Your task to perform on an android device: Open location settings Image 0: 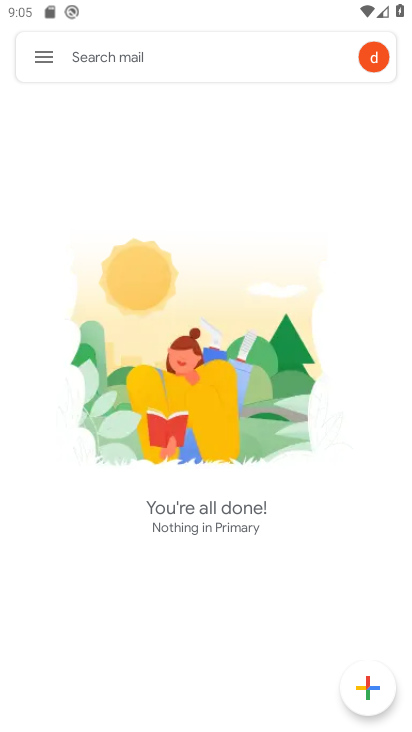
Step 0: press home button
Your task to perform on an android device: Open location settings Image 1: 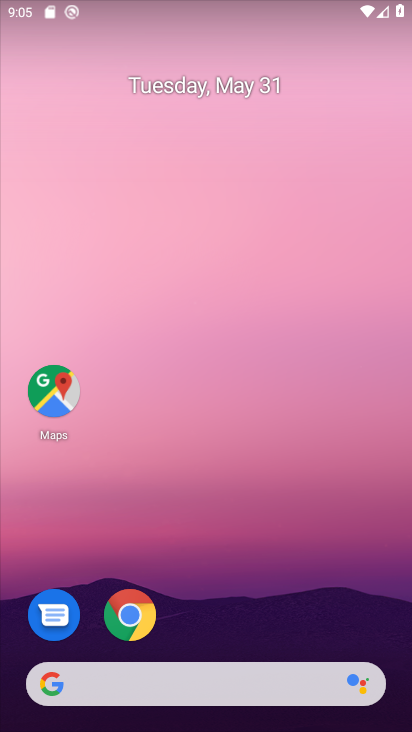
Step 1: drag from (90, 677) to (203, 55)
Your task to perform on an android device: Open location settings Image 2: 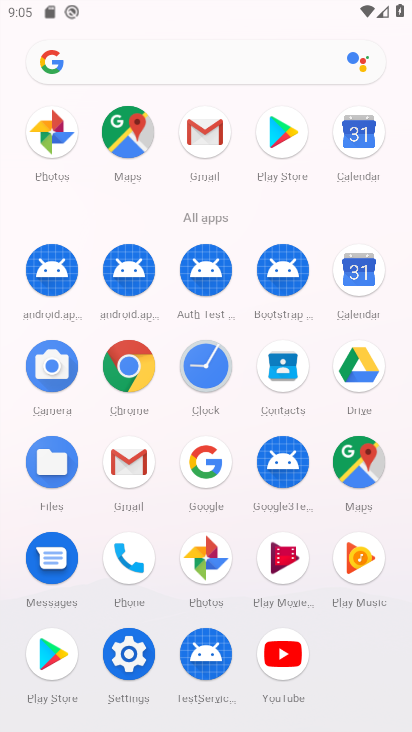
Step 2: drag from (207, 591) to (265, 317)
Your task to perform on an android device: Open location settings Image 3: 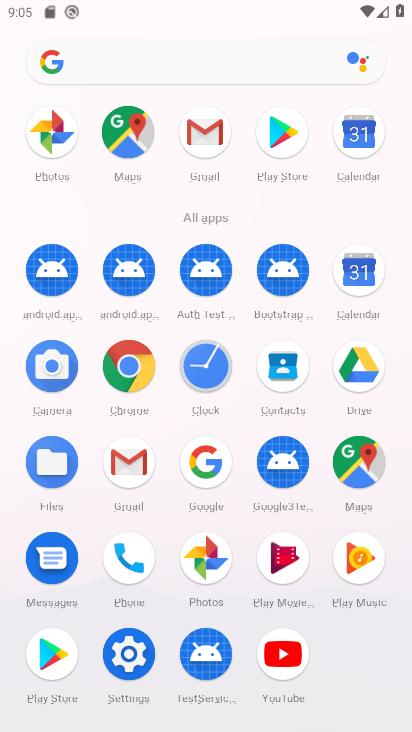
Step 3: click (134, 645)
Your task to perform on an android device: Open location settings Image 4: 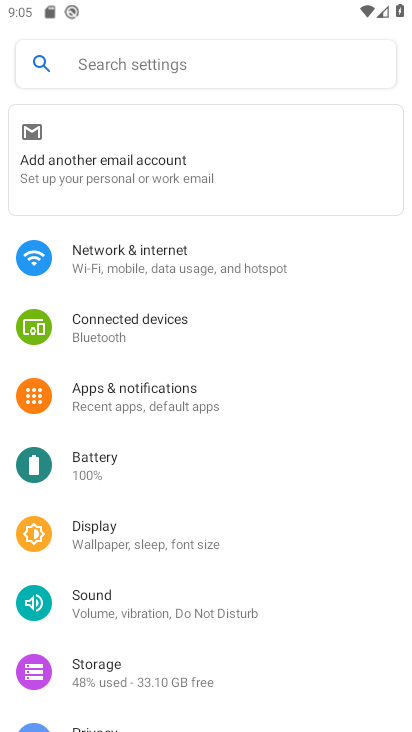
Step 4: drag from (98, 627) to (235, 84)
Your task to perform on an android device: Open location settings Image 5: 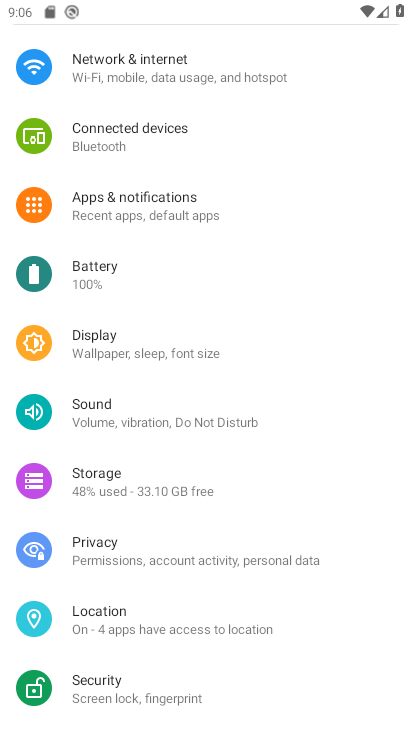
Step 5: click (136, 612)
Your task to perform on an android device: Open location settings Image 6: 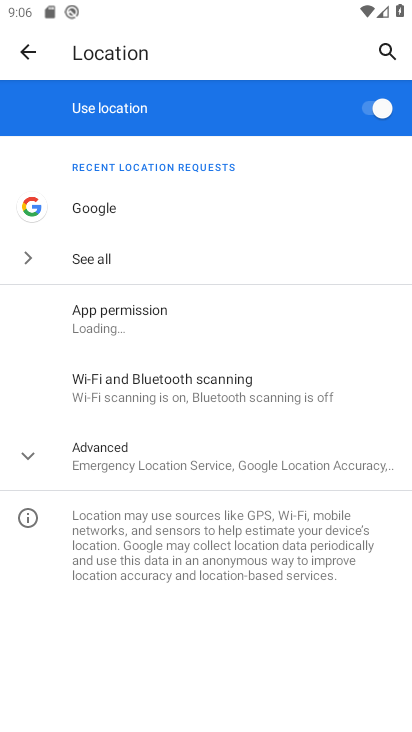
Step 6: task complete